Your task to perform on an android device: change the clock style Image 0: 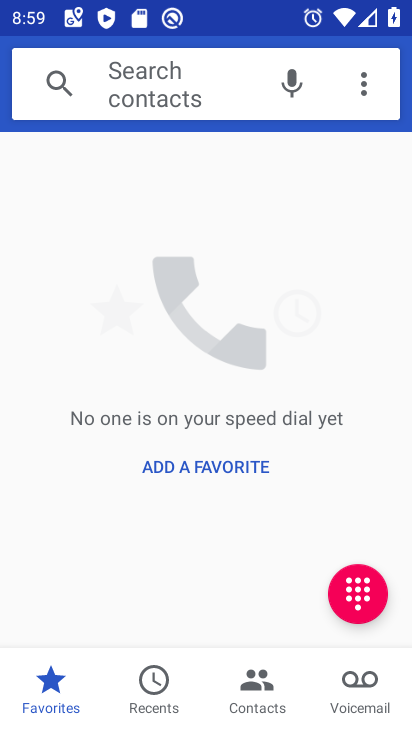
Step 0: press home button
Your task to perform on an android device: change the clock style Image 1: 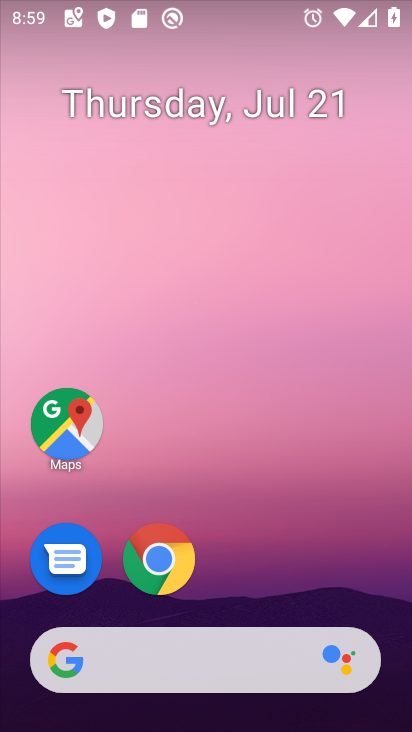
Step 1: drag from (317, 575) to (401, 53)
Your task to perform on an android device: change the clock style Image 2: 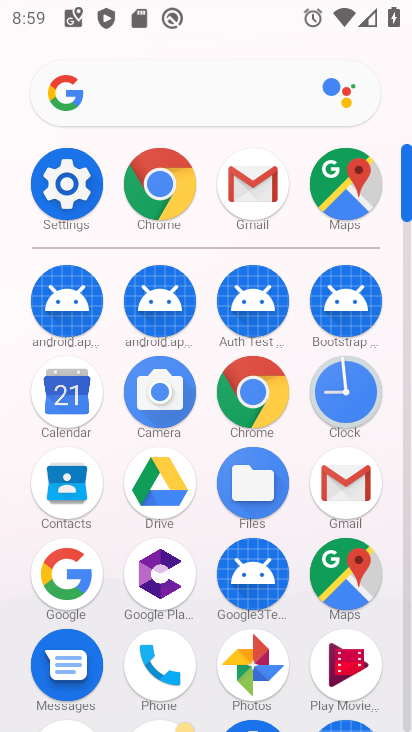
Step 2: click (354, 398)
Your task to perform on an android device: change the clock style Image 3: 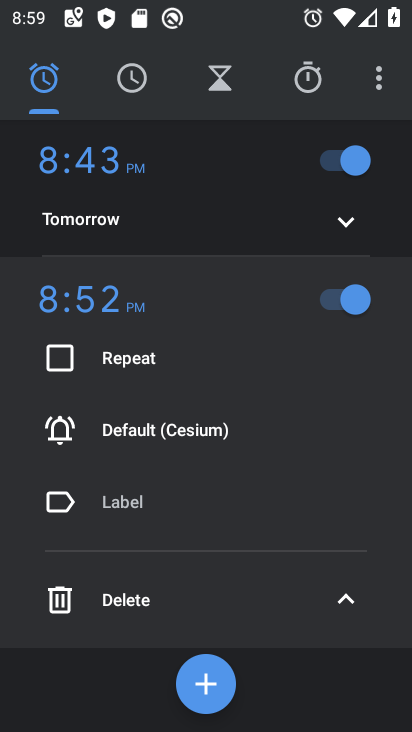
Step 3: click (377, 85)
Your task to perform on an android device: change the clock style Image 4: 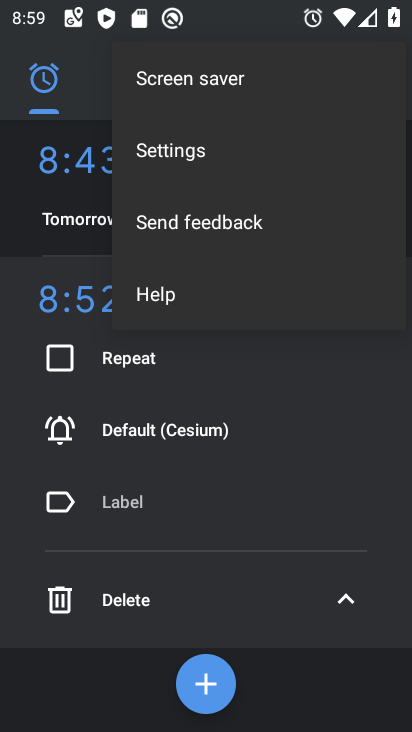
Step 4: click (239, 152)
Your task to perform on an android device: change the clock style Image 5: 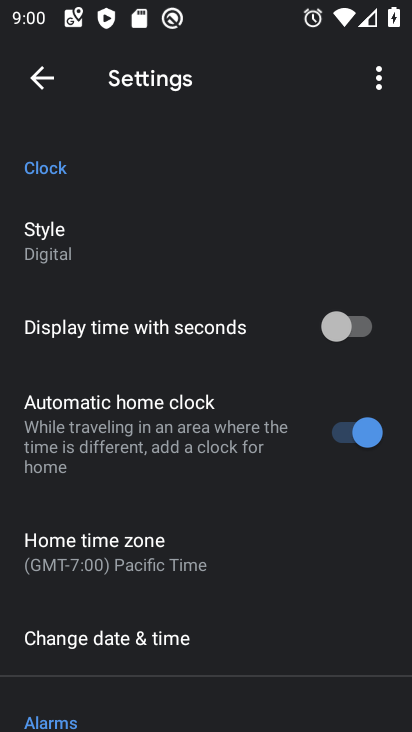
Step 5: click (107, 256)
Your task to perform on an android device: change the clock style Image 6: 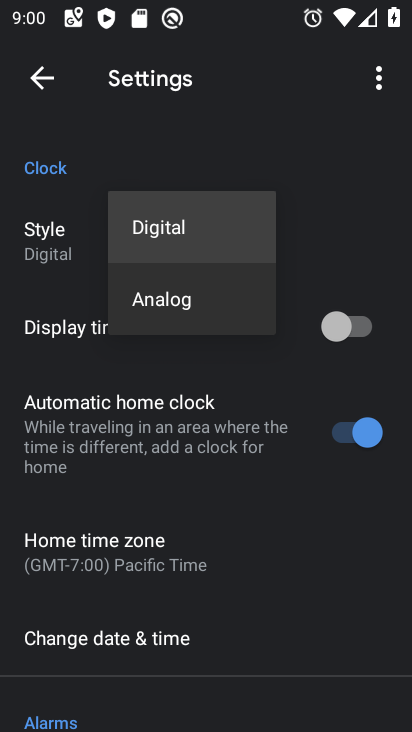
Step 6: click (200, 312)
Your task to perform on an android device: change the clock style Image 7: 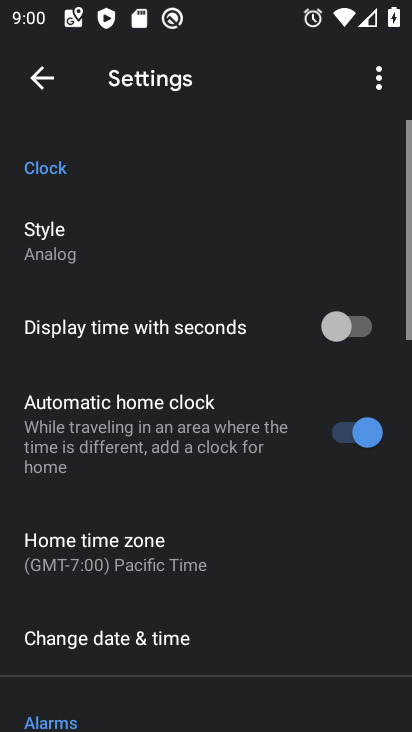
Step 7: task complete